Your task to perform on an android device: turn on javascript in the chrome app Image 0: 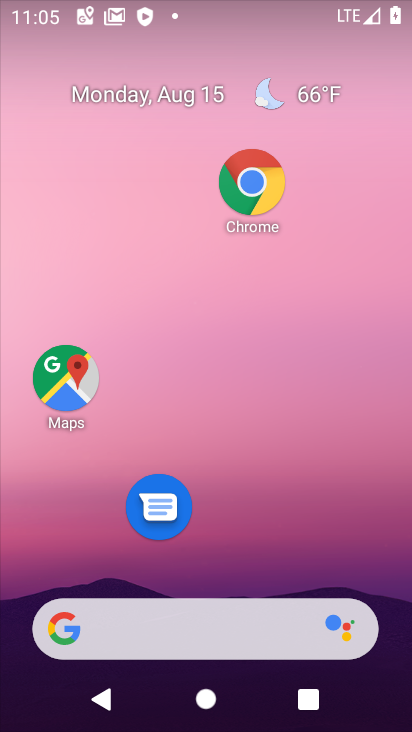
Step 0: click (256, 199)
Your task to perform on an android device: turn on javascript in the chrome app Image 1: 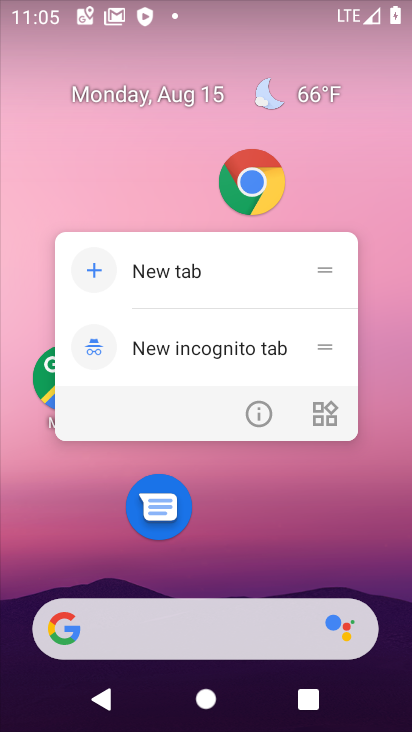
Step 1: click (231, 205)
Your task to perform on an android device: turn on javascript in the chrome app Image 2: 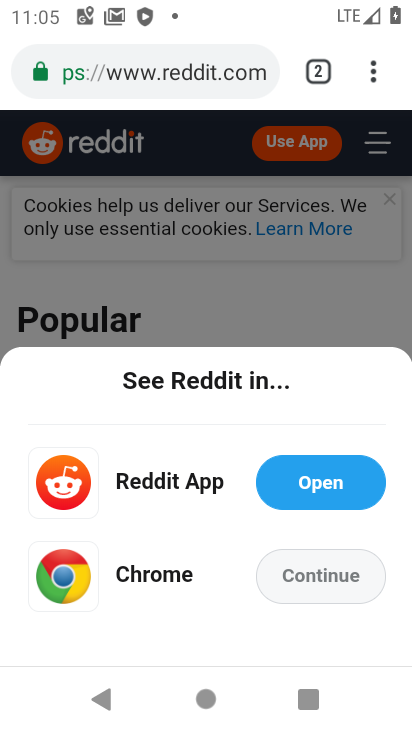
Step 2: click (311, 595)
Your task to perform on an android device: turn on javascript in the chrome app Image 3: 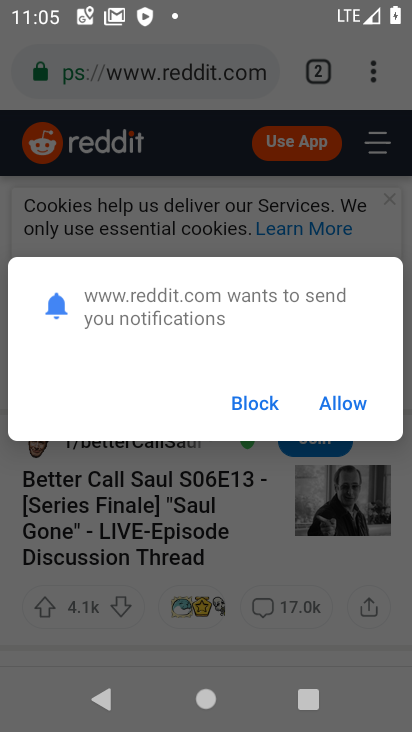
Step 3: click (341, 424)
Your task to perform on an android device: turn on javascript in the chrome app Image 4: 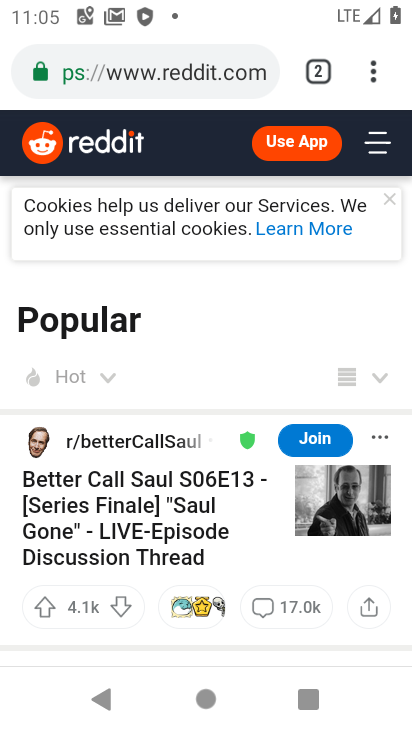
Step 4: click (384, 76)
Your task to perform on an android device: turn on javascript in the chrome app Image 5: 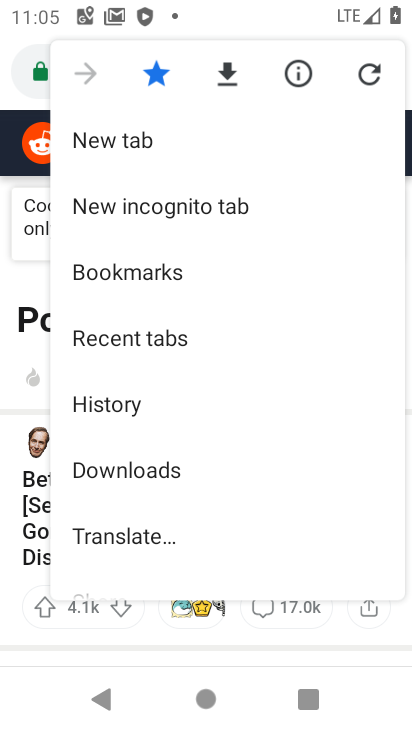
Step 5: drag from (141, 491) to (162, 173)
Your task to perform on an android device: turn on javascript in the chrome app Image 6: 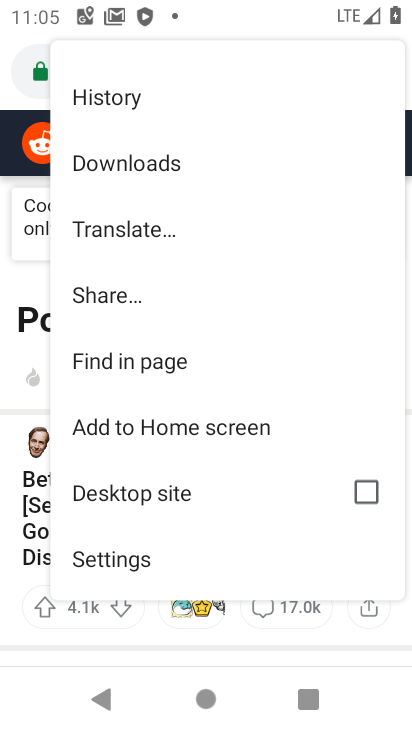
Step 6: click (162, 546)
Your task to perform on an android device: turn on javascript in the chrome app Image 7: 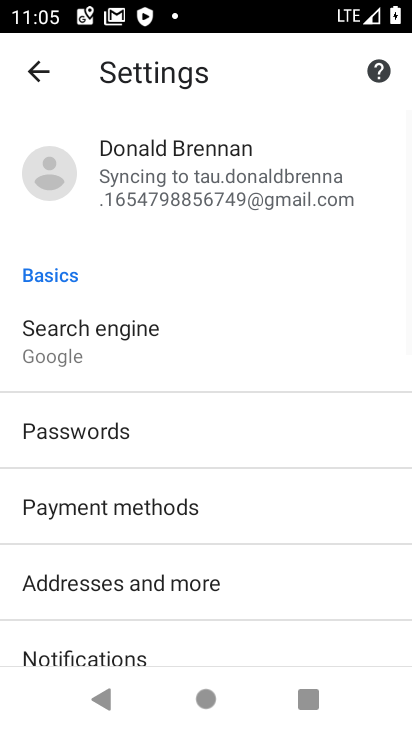
Step 7: drag from (244, 583) to (266, 186)
Your task to perform on an android device: turn on javascript in the chrome app Image 8: 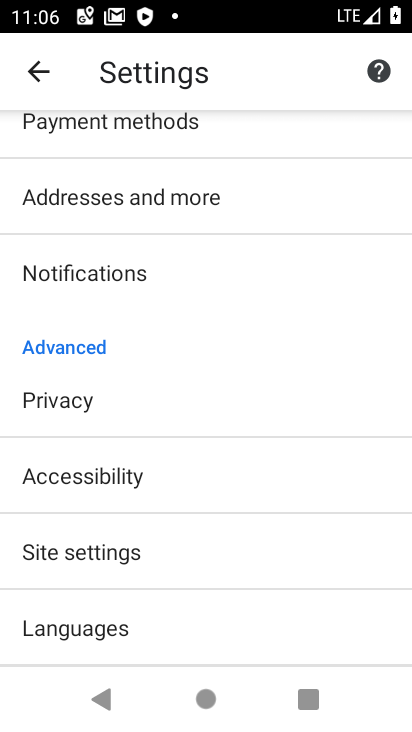
Step 8: click (173, 541)
Your task to perform on an android device: turn on javascript in the chrome app Image 9: 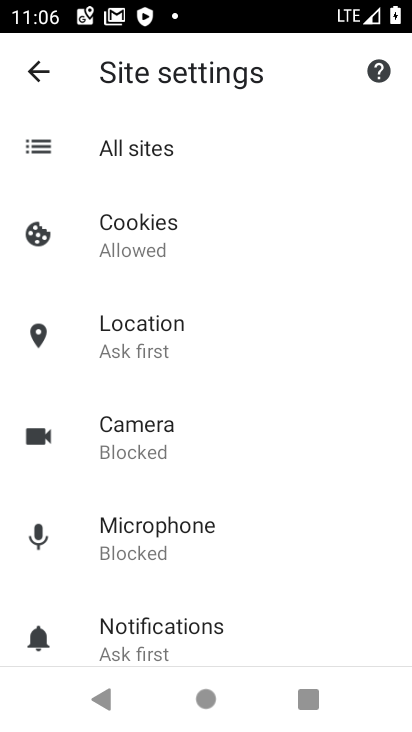
Step 9: task complete